Your task to perform on an android device: delete a single message in the gmail app Image 0: 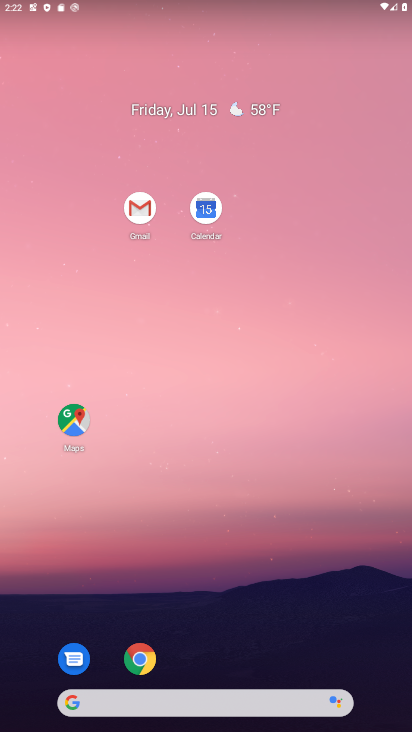
Step 0: click (145, 192)
Your task to perform on an android device: delete a single message in the gmail app Image 1: 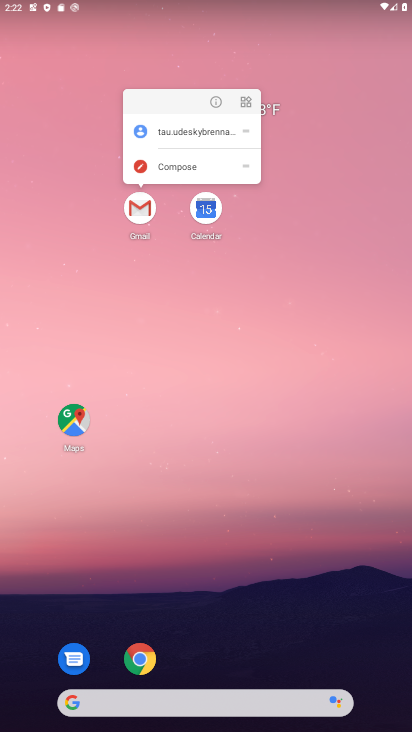
Step 1: click (154, 226)
Your task to perform on an android device: delete a single message in the gmail app Image 2: 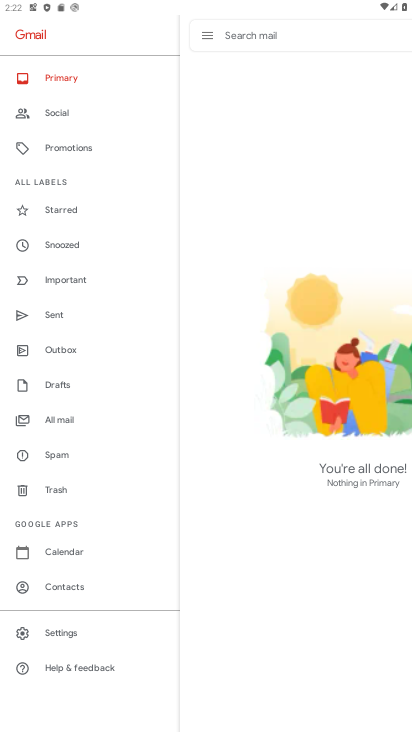
Step 2: click (79, 418)
Your task to perform on an android device: delete a single message in the gmail app Image 3: 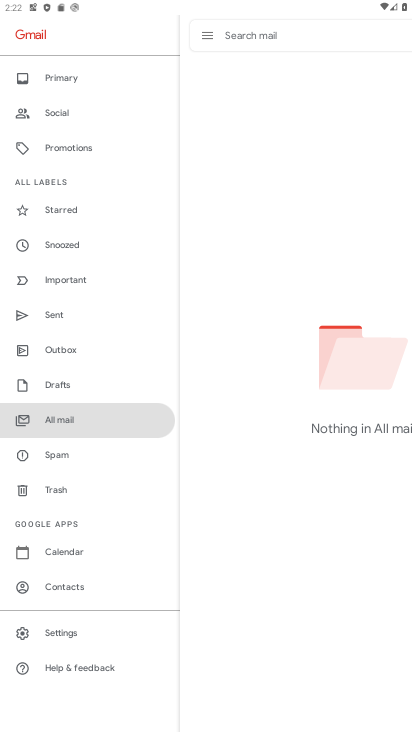
Step 3: task complete